Your task to perform on an android device: Open Youtube and go to "Your channel" Image 0: 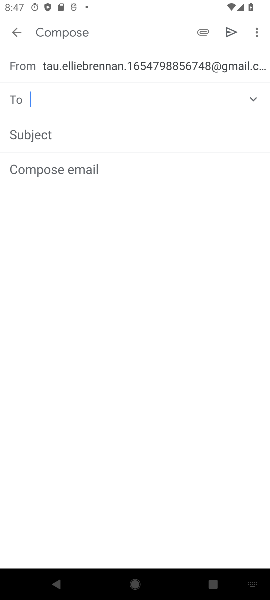
Step 0: press home button
Your task to perform on an android device: Open Youtube and go to "Your channel" Image 1: 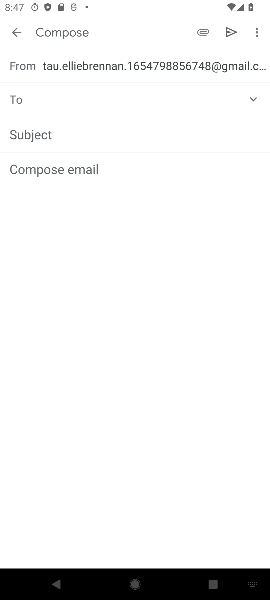
Step 1: press home button
Your task to perform on an android device: Open Youtube and go to "Your channel" Image 2: 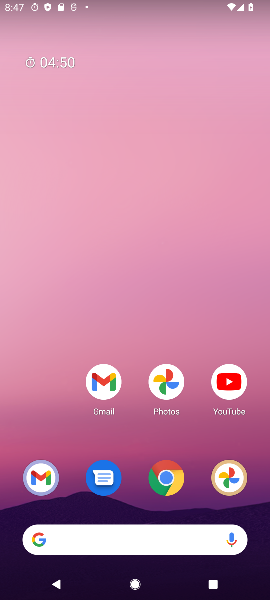
Step 2: click (237, 382)
Your task to perform on an android device: Open Youtube and go to "Your channel" Image 3: 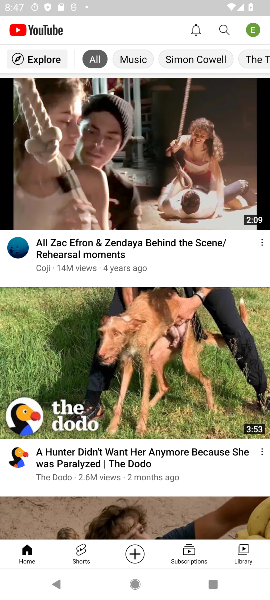
Step 3: click (248, 32)
Your task to perform on an android device: Open Youtube and go to "Your channel" Image 4: 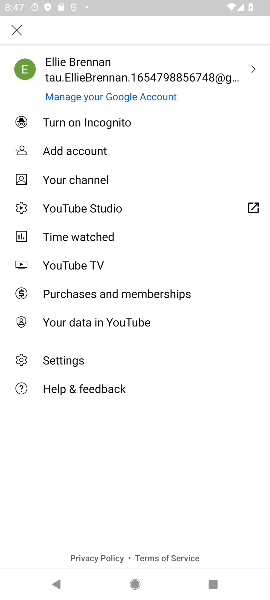
Step 4: click (56, 181)
Your task to perform on an android device: Open Youtube and go to "Your channel" Image 5: 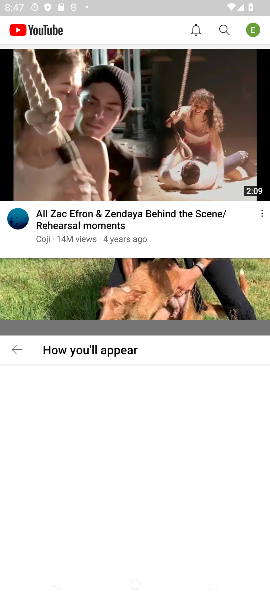
Step 5: task complete